Your task to perform on an android device: toggle wifi Image 0: 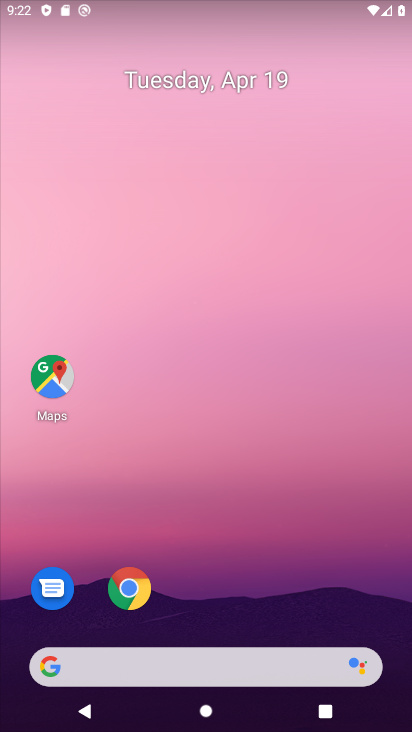
Step 0: drag from (211, 644) to (291, 96)
Your task to perform on an android device: toggle wifi Image 1: 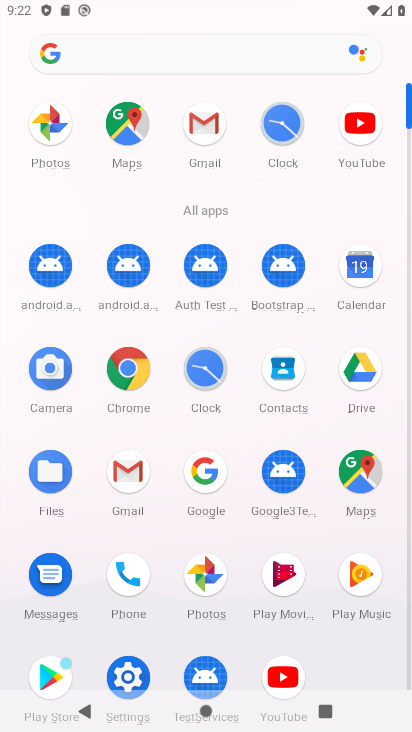
Step 1: click (124, 664)
Your task to perform on an android device: toggle wifi Image 2: 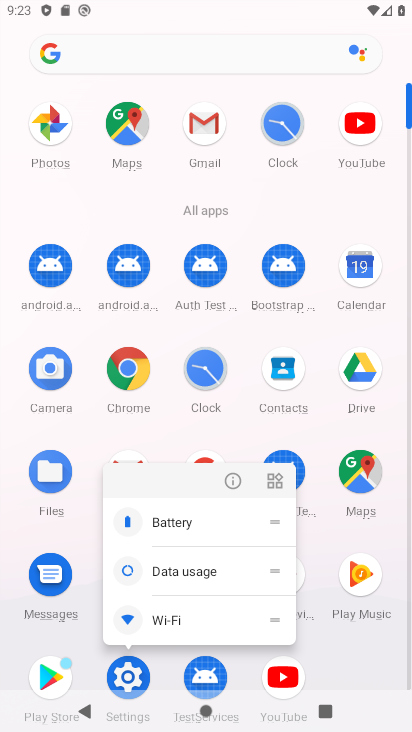
Step 2: click (121, 685)
Your task to perform on an android device: toggle wifi Image 3: 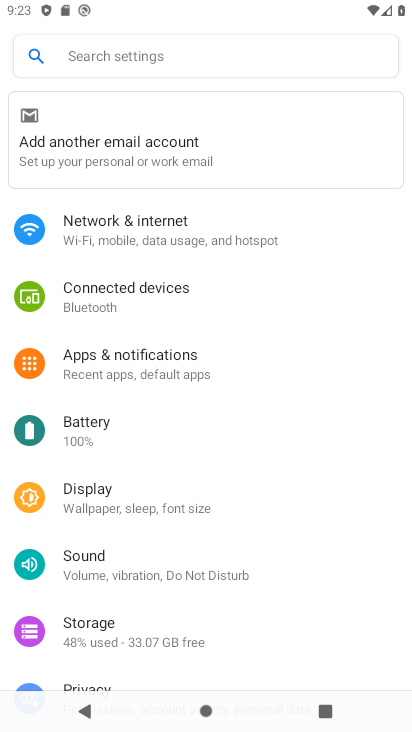
Step 3: click (245, 241)
Your task to perform on an android device: toggle wifi Image 4: 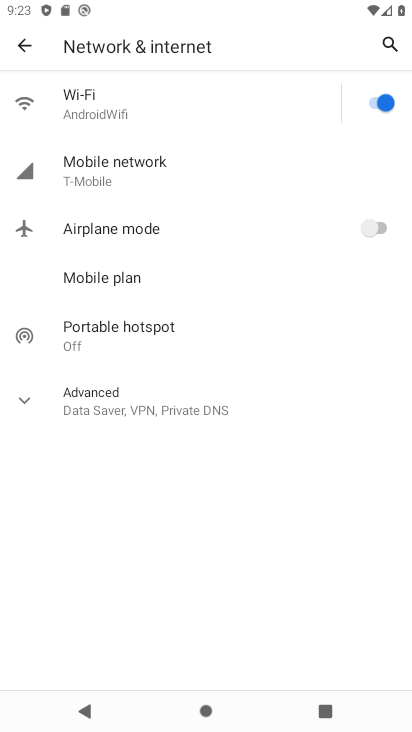
Step 4: click (382, 105)
Your task to perform on an android device: toggle wifi Image 5: 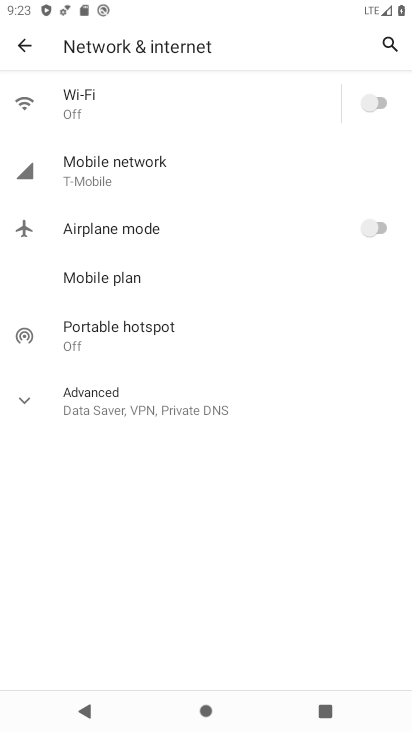
Step 5: task complete